Your task to perform on an android device: Open display settings Image 0: 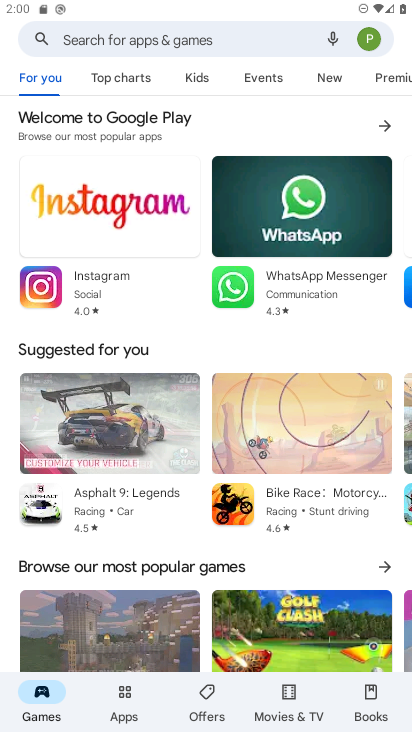
Step 0: press home button
Your task to perform on an android device: Open display settings Image 1: 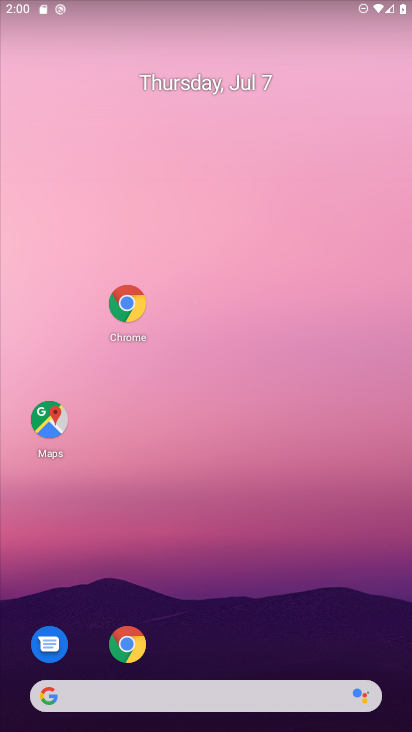
Step 1: drag from (283, 552) to (341, 15)
Your task to perform on an android device: Open display settings Image 2: 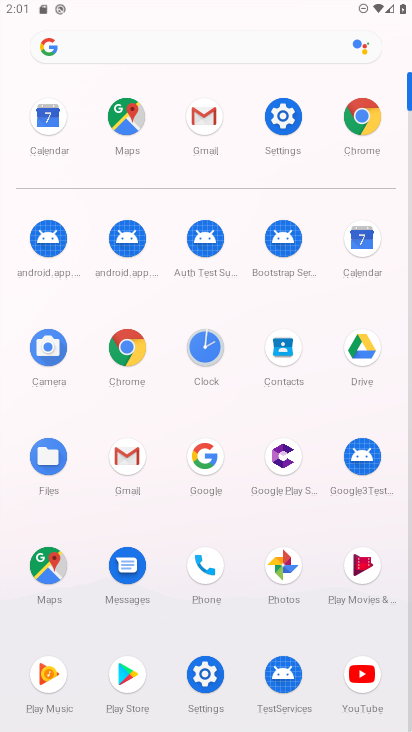
Step 2: click (197, 684)
Your task to perform on an android device: Open display settings Image 3: 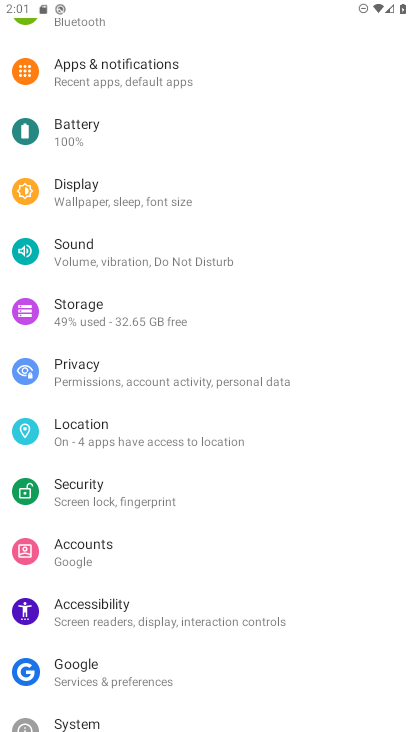
Step 3: click (133, 194)
Your task to perform on an android device: Open display settings Image 4: 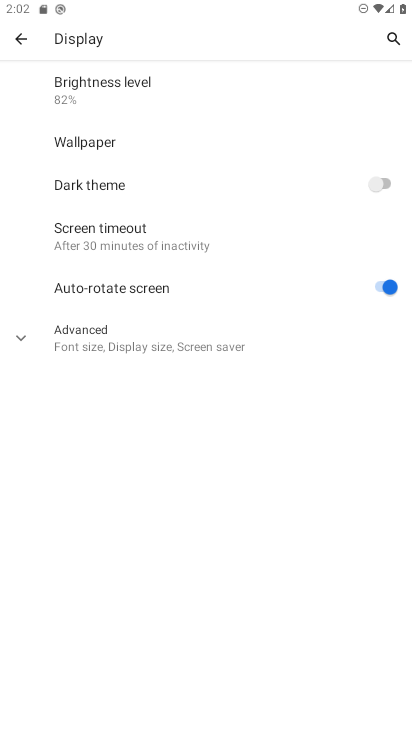
Step 4: task complete